Your task to perform on an android device: open chrome and create a bookmark for the current page Image 0: 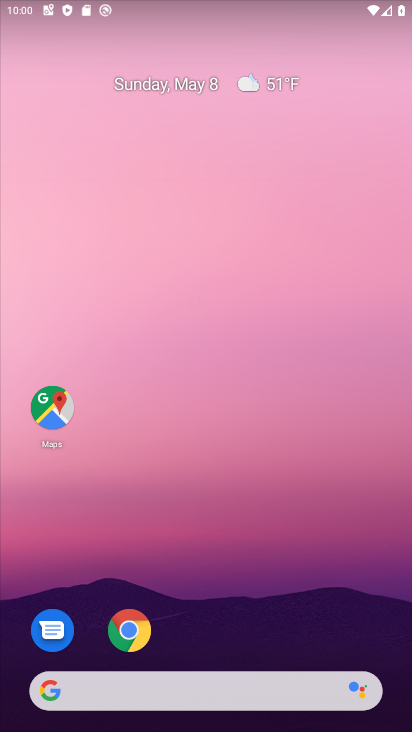
Step 0: drag from (400, 668) to (333, 123)
Your task to perform on an android device: open chrome and create a bookmark for the current page Image 1: 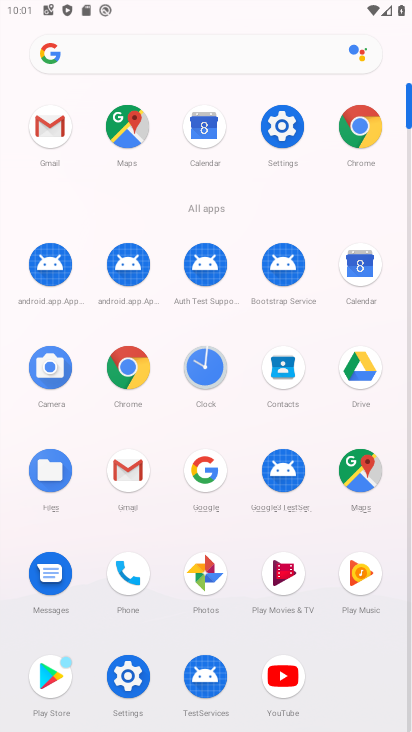
Step 1: click (357, 108)
Your task to perform on an android device: open chrome and create a bookmark for the current page Image 2: 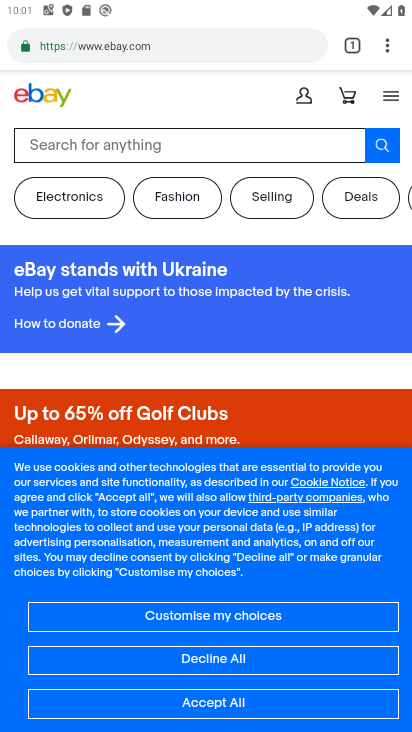
Step 2: press back button
Your task to perform on an android device: open chrome and create a bookmark for the current page Image 3: 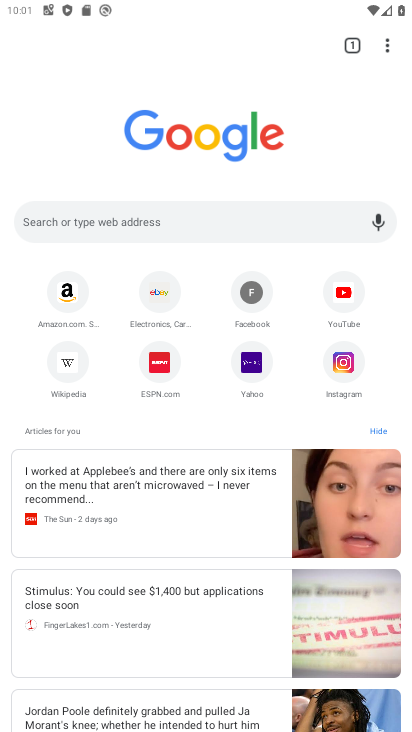
Step 3: click (389, 43)
Your task to perform on an android device: open chrome and create a bookmark for the current page Image 4: 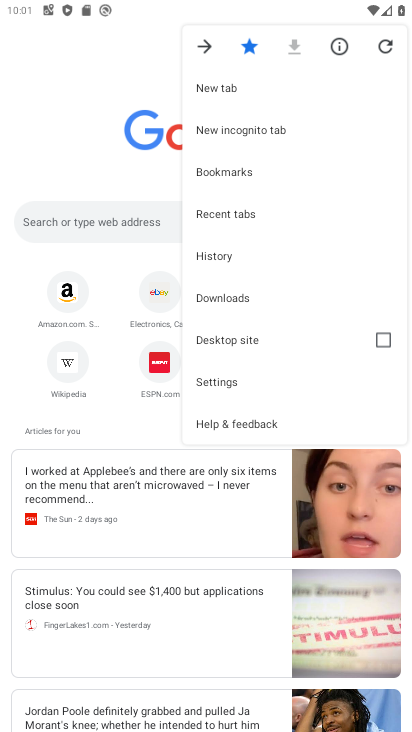
Step 4: task complete